Your task to perform on an android device: What's on my calendar today? Image 0: 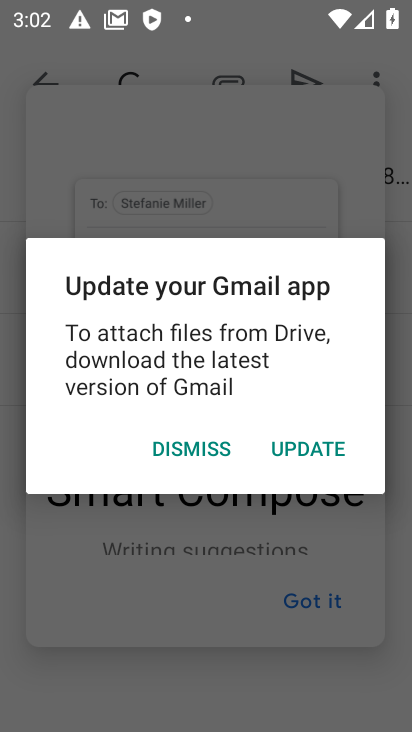
Step 0: press home button
Your task to perform on an android device: What's on my calendar today? Image 1: 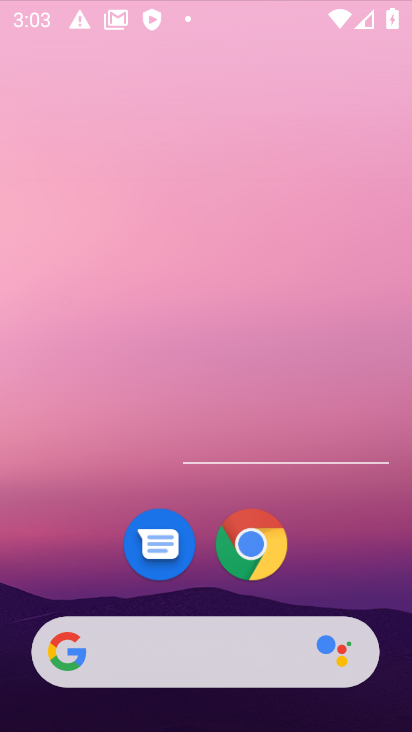
Step 1: drag from (385, 653) to (159, 10)
Your task to perform on an android device: What's on my calendar today? Image 2: 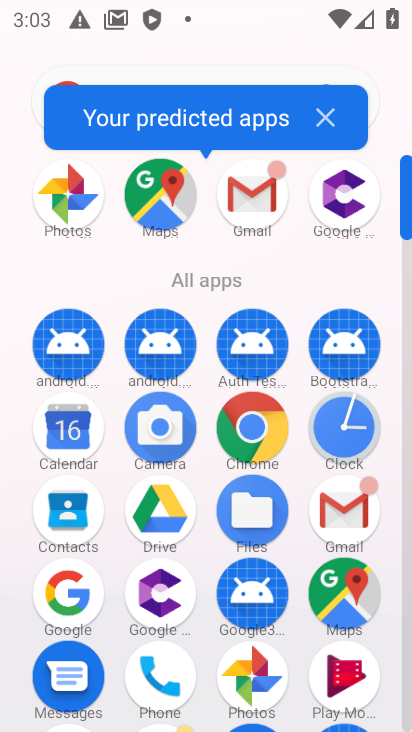
Step 2: click (71, 428)
Your task to perform on an android device: What's on my calendar today? Image 3: 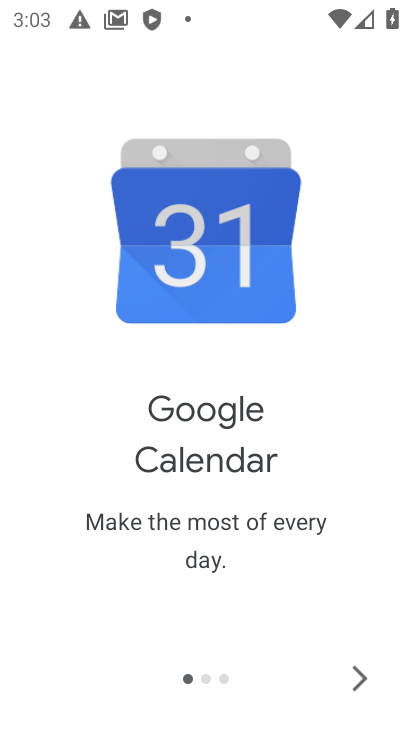
Step 3: click (369, 681)
Your task to perform on an android device: What's on my calendar today? Image 4: 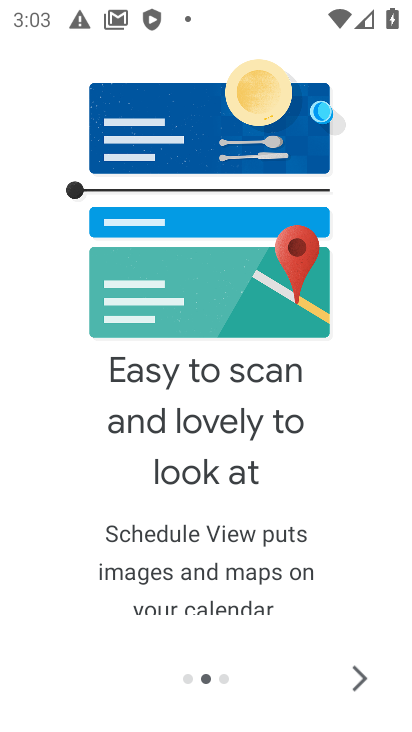
Step 4: click (358, 675)
Your task to perform on an android device: What's on my calendar today? Image 5: 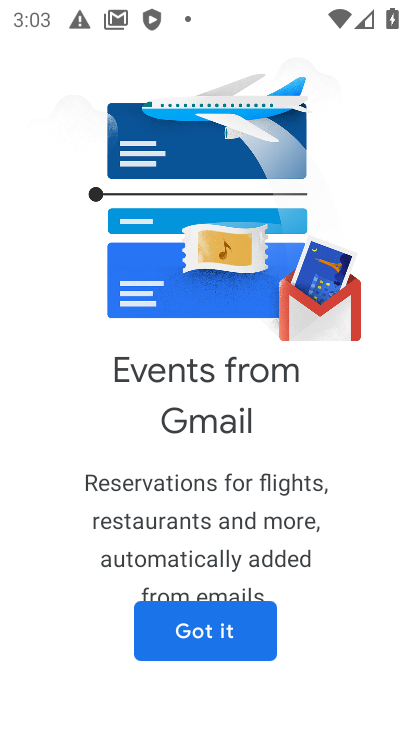
Step 5: click (185, 648)
Your task to perform on an android device: What's on my calendar today? Image 6: 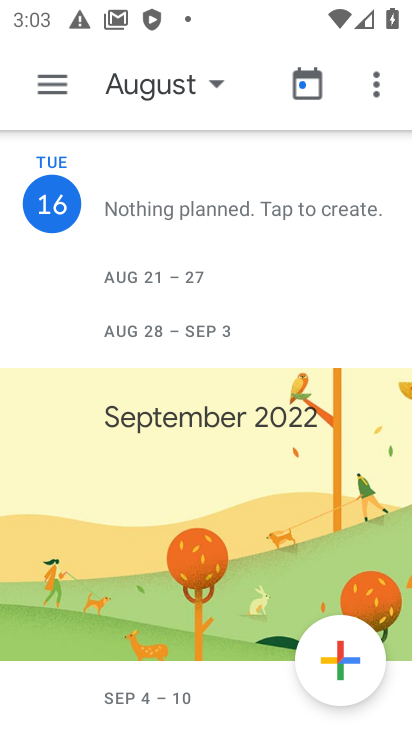
Step 6: task complete